Your task to perform on an android device: Go to Google Image 0: 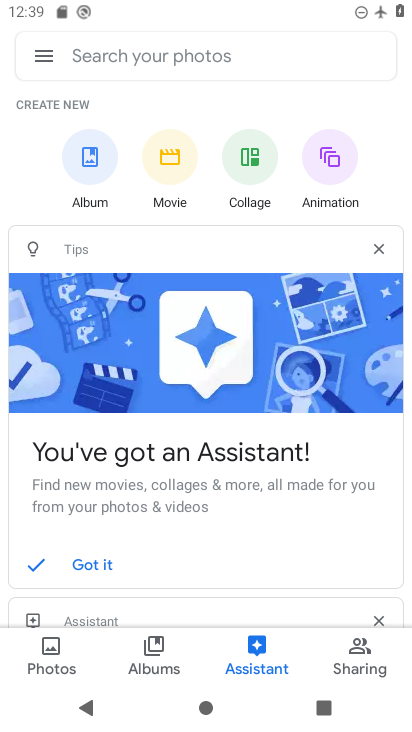
Step 0: press home button
Your task to perform on an android device: Go to Google Image 1: 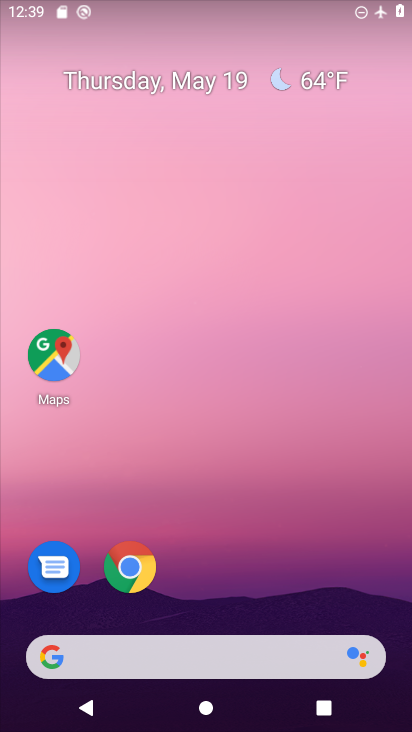
Step 1: drag from (206, 534) to (206, 112)
Your task to perform on an android device: Go to Google Image 2: 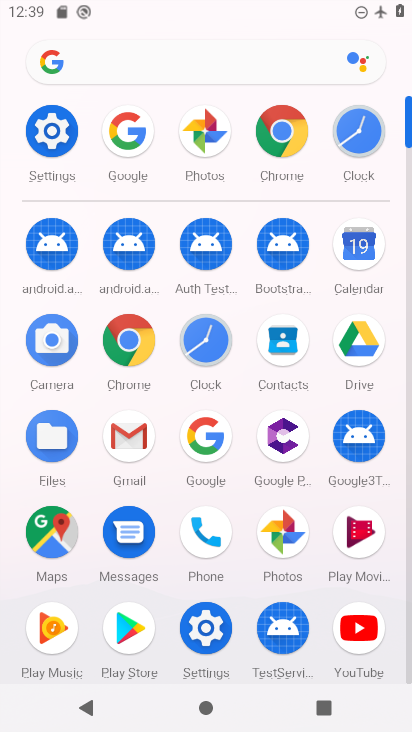
Step 2: click (198, 433)
Your task to perform on an android device: Go to Google Image 3: 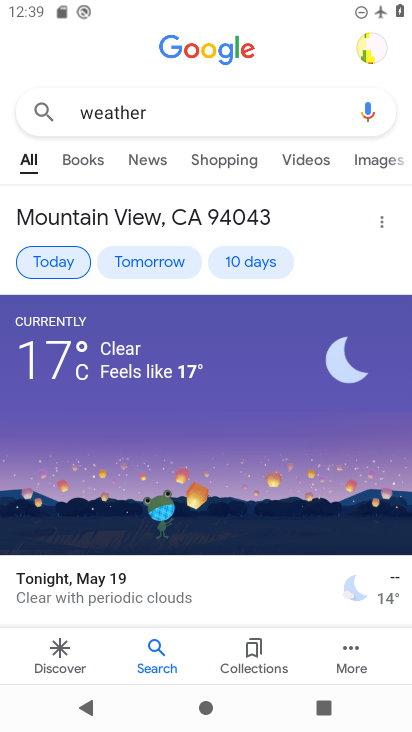
Step 3: task complete